Your task to perform on an android device: change text size in settings app Image 0: 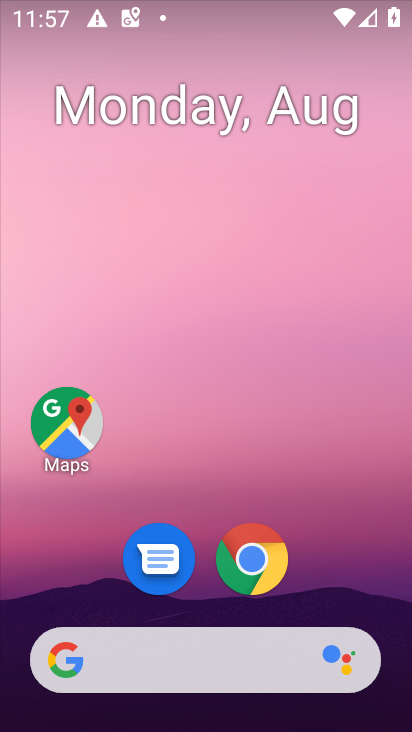
Step 0: drag from (200, 590) to (239, 73)
Your task to perform on an android device: change text size in settings app Image 1: 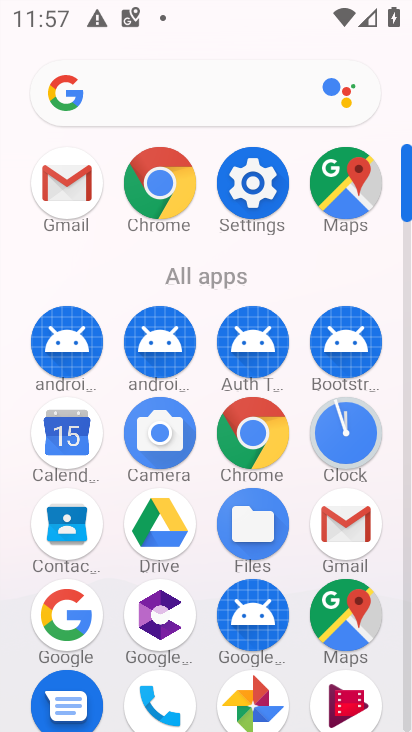
Step 1: click (267, 190)
Your task to perform on an android device: change text size in settings app Image 2: 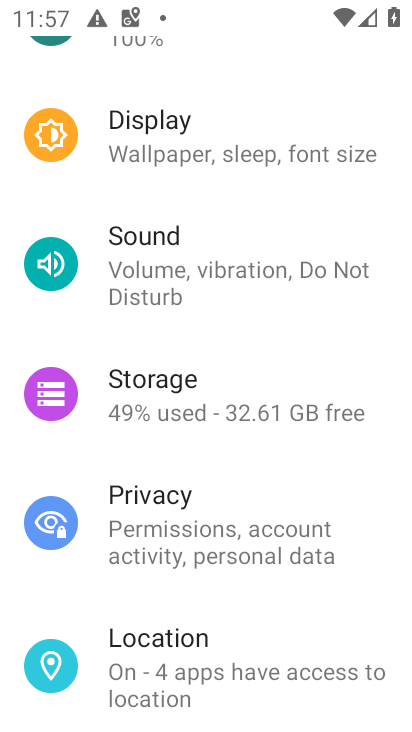
Step 2: drag from (206, 499) to (244, 229)
Your task to perform on an android device: change text size in settings app Image 3: 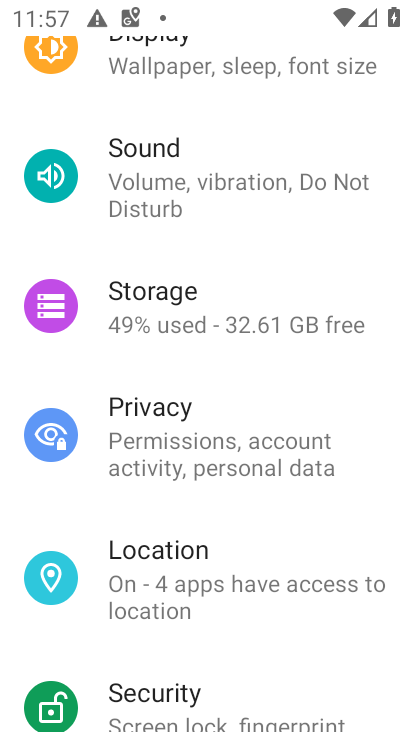
Step 3: drag from (162, 620) to (206, 302)
Your task to perform on an android device: change text size in settings app Image 4: 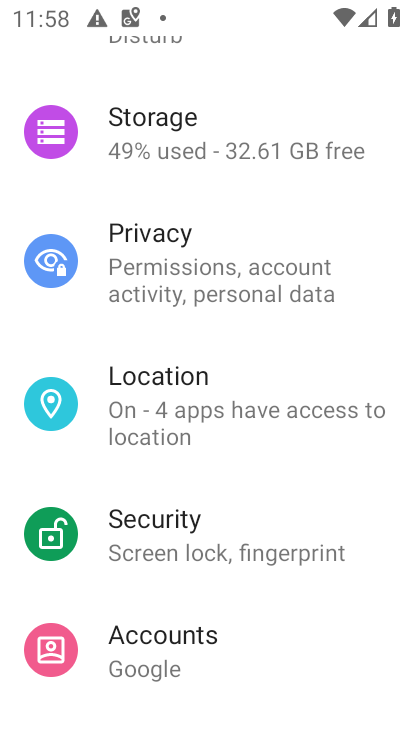
Step 4: drag from (220, 552) to (252, 238)
Your task to perform on an android device: change text size in settings app Image 5: 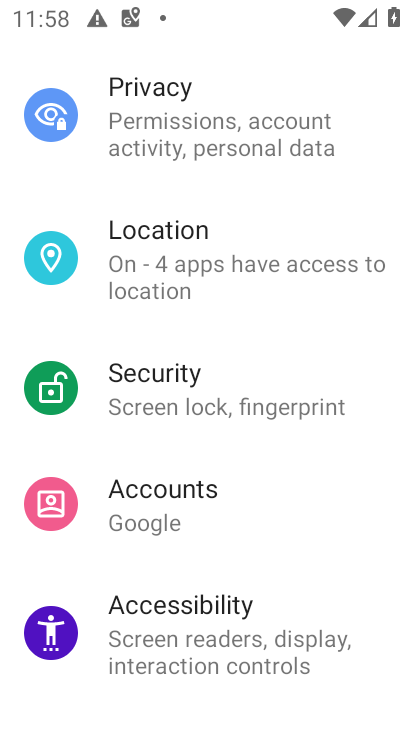
Step 5: drag from (229, 386) to (203, 724)
Your task to perform on an android device: change text size in settings app Image 6: 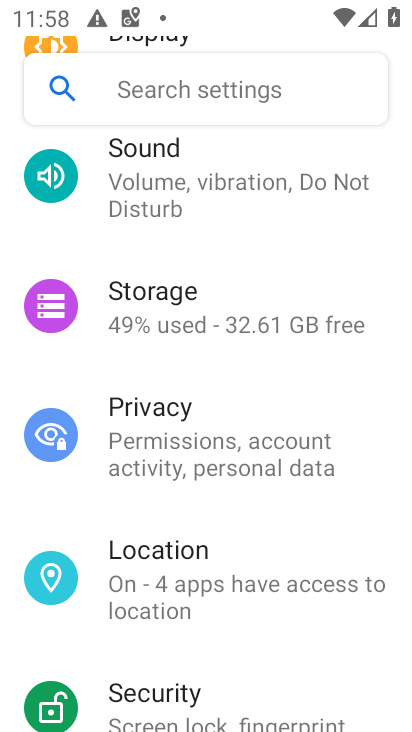
Step 6: drag from (222, 240) to (223, 581)
Your task to perform on an android device: change text size in settings app Image 7: 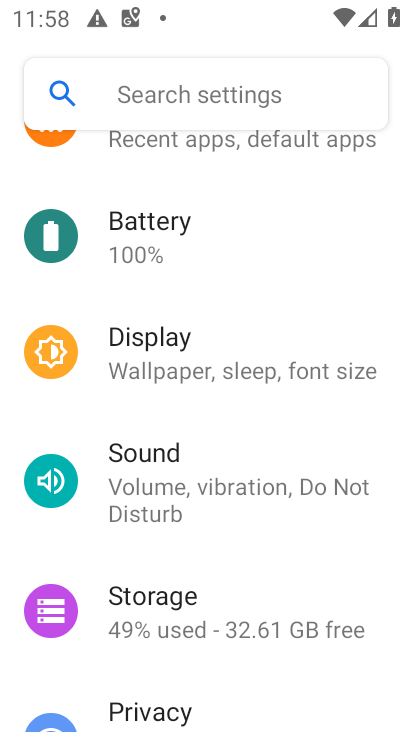
Step 7: click (161, 361)
Your task to perform on an android device: change text size in settings app Image 8: 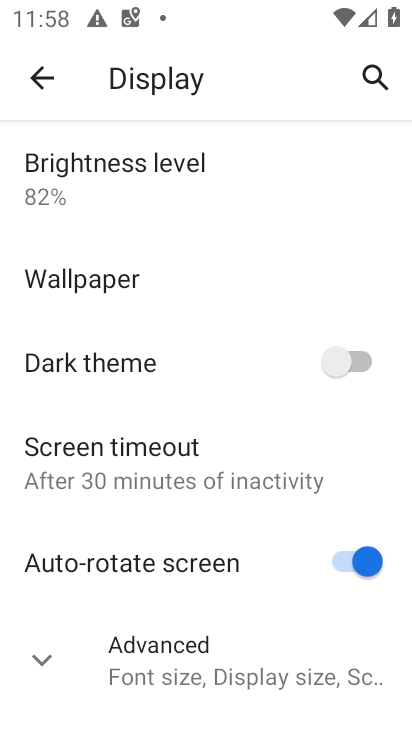
Step 8: drag from (153, 629) to (196, 454)
Your task to perform on an android device: change text size in settings app Image 9: 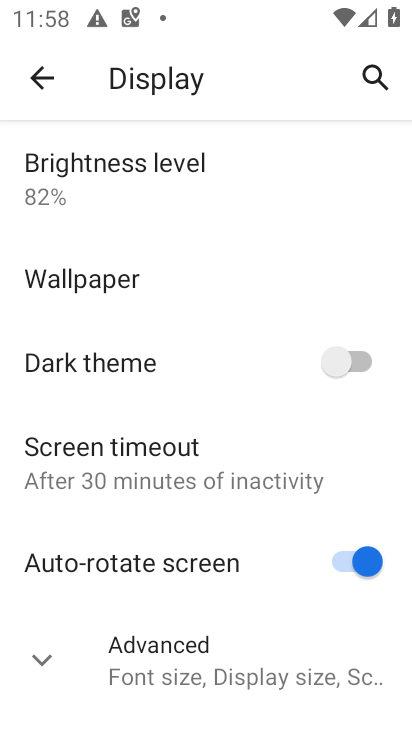
Step 9: click (147, 671)
Your task to perform on an android device: change text size in settings app Image 10: 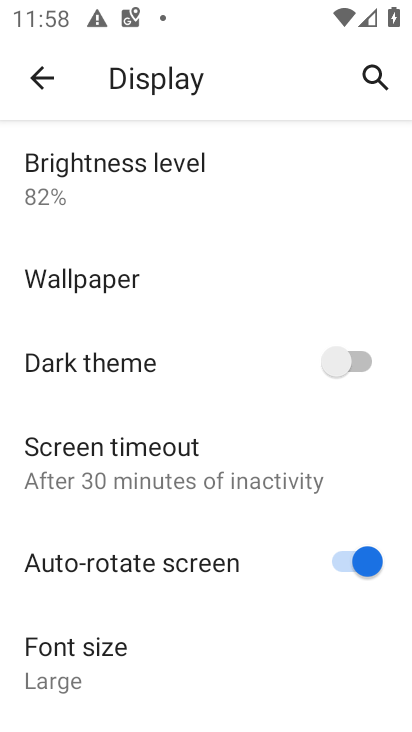
Step 10: click (88, 666)
Your task to perform on an android device: change text size in settings app Image 11: 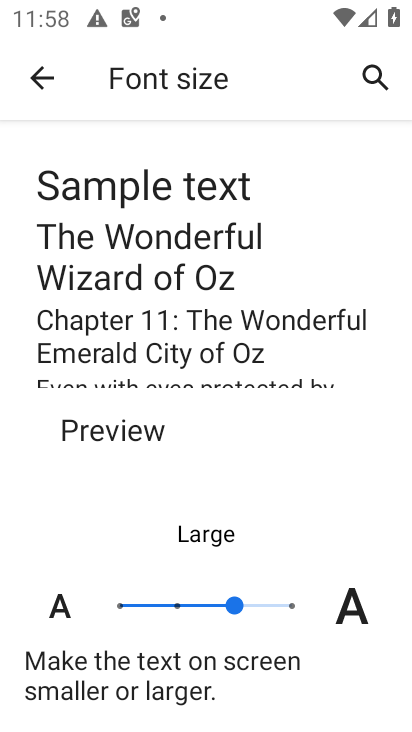
Step 11: click (172, 601)
Your task to perform on an android device: change text size in settings app Image 12: 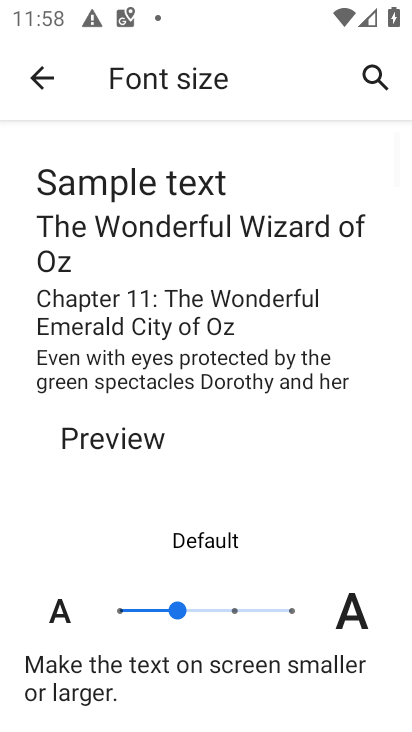
Step 12: task complete